Your task to perform on an android device: open app "HBO Max: Stream TV & Movies" Image 0: 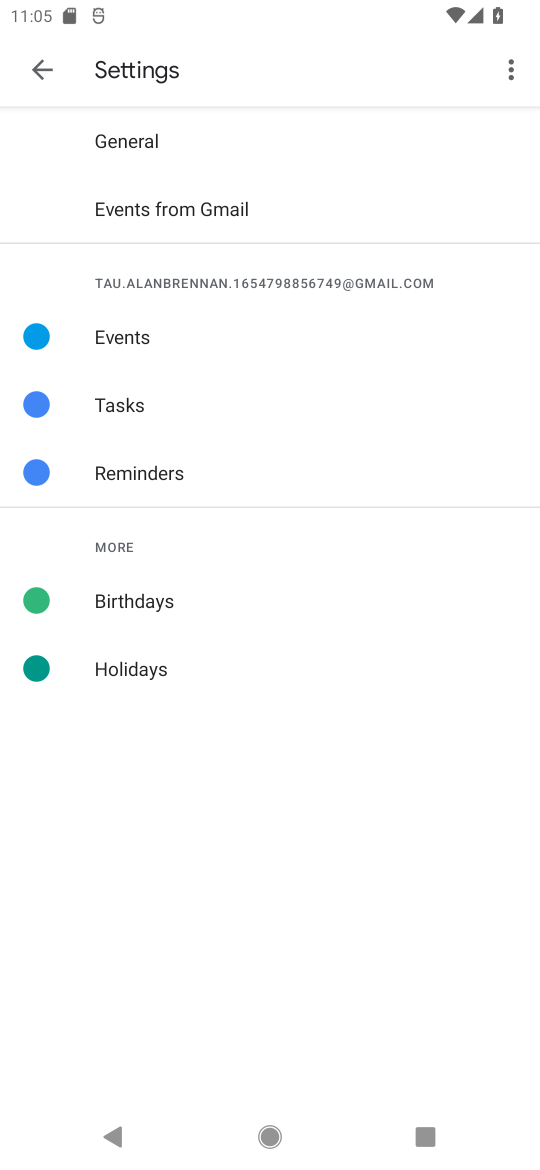
Step 0: press home button
Your task to perform on an android device: open app "HBO Max: Stream TV & Movies" Image 1: 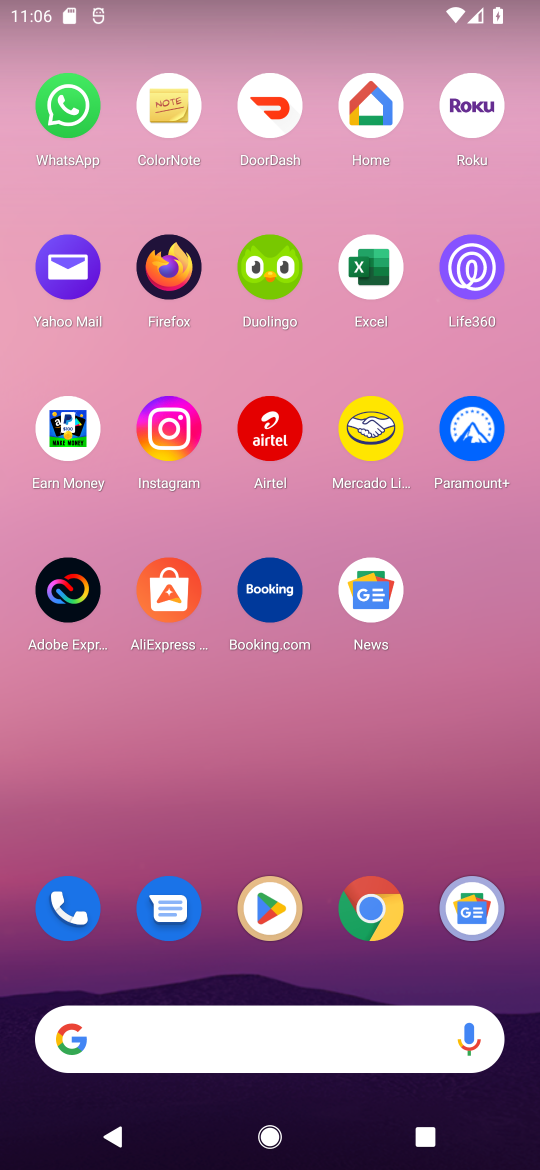
Step 1: click (277, 918)
Your task to perform on an android device: open app "HBO Max: Stream TV & Movies" Image 2: 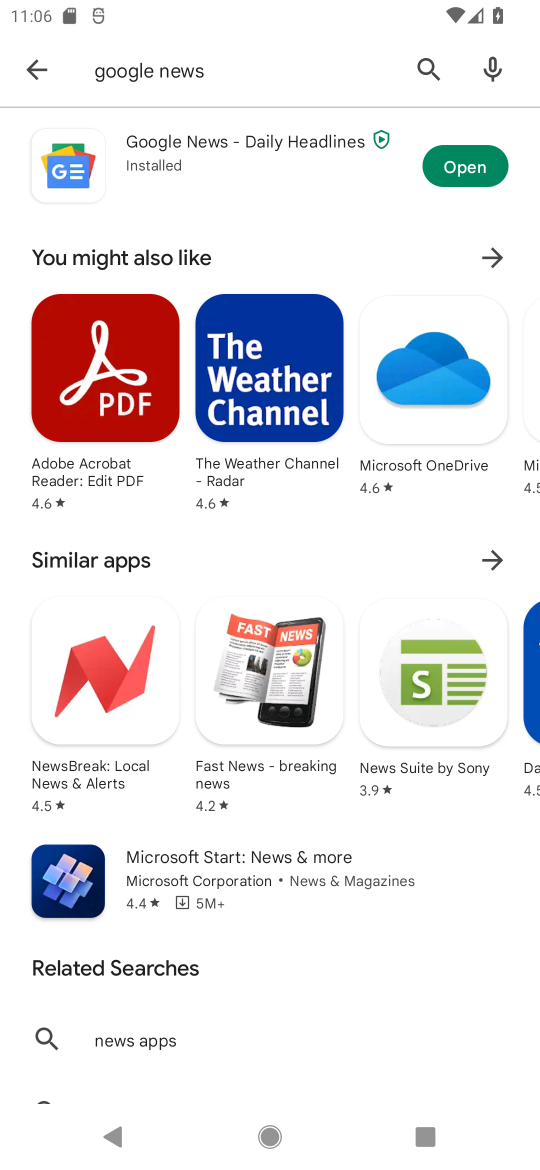
Step 2: click (47, 54)
Your task to perform on an android device: open app "HBO Max: Stream TV & Movies" Image 3: 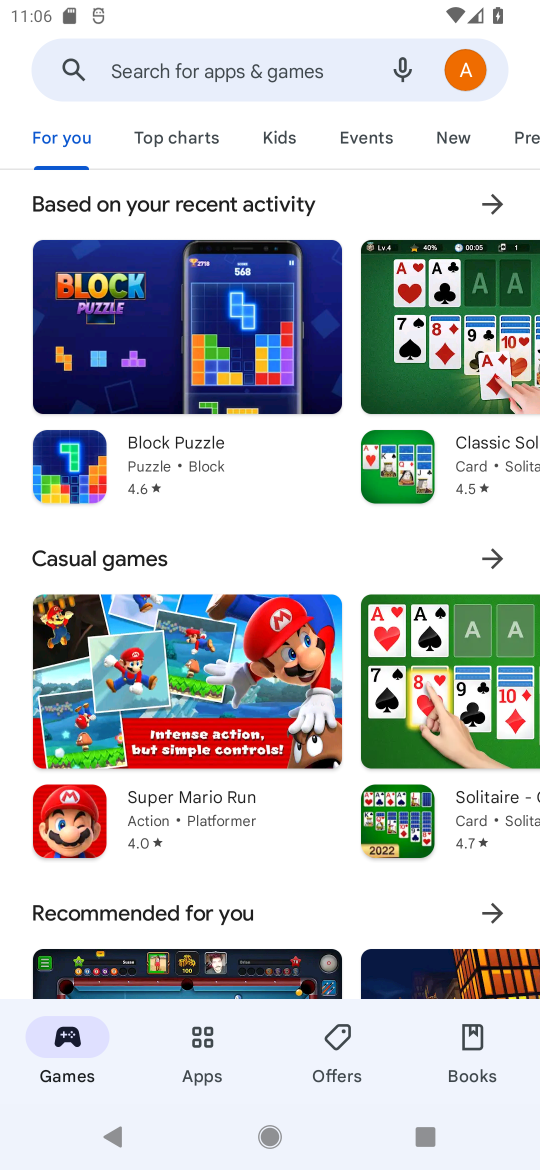
Step 3: click (126, 59)
Your task to perform on an android device: open app "HBO Max: Stream TV & Movies" Image 4: 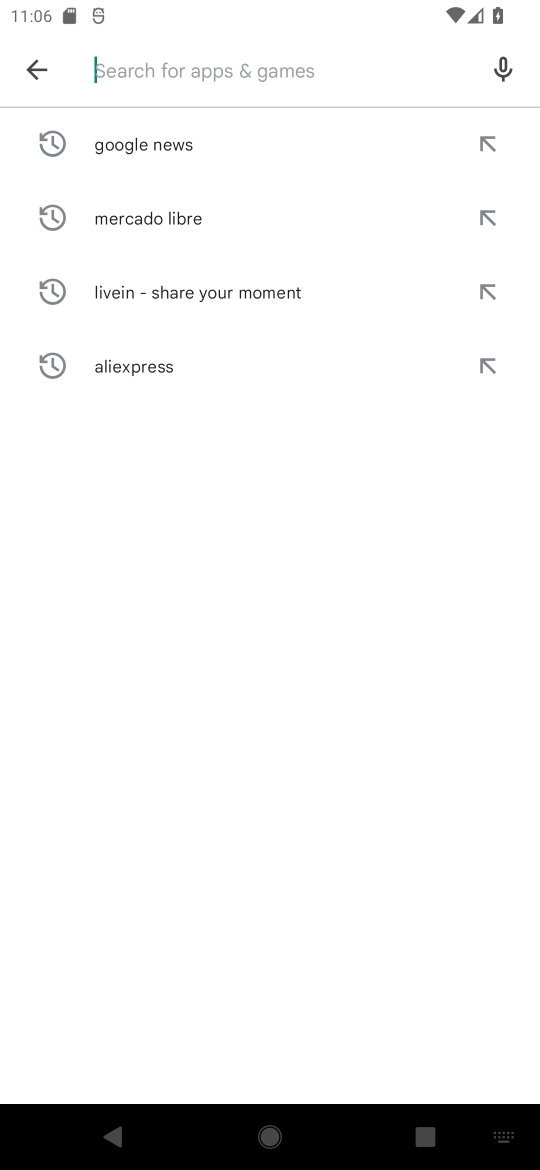
Step 4: type "HBO Max: Stream TV & Movies"
Your task to perform on an android device: open app "HBO Max: Stream TV & Movies" Image 5: 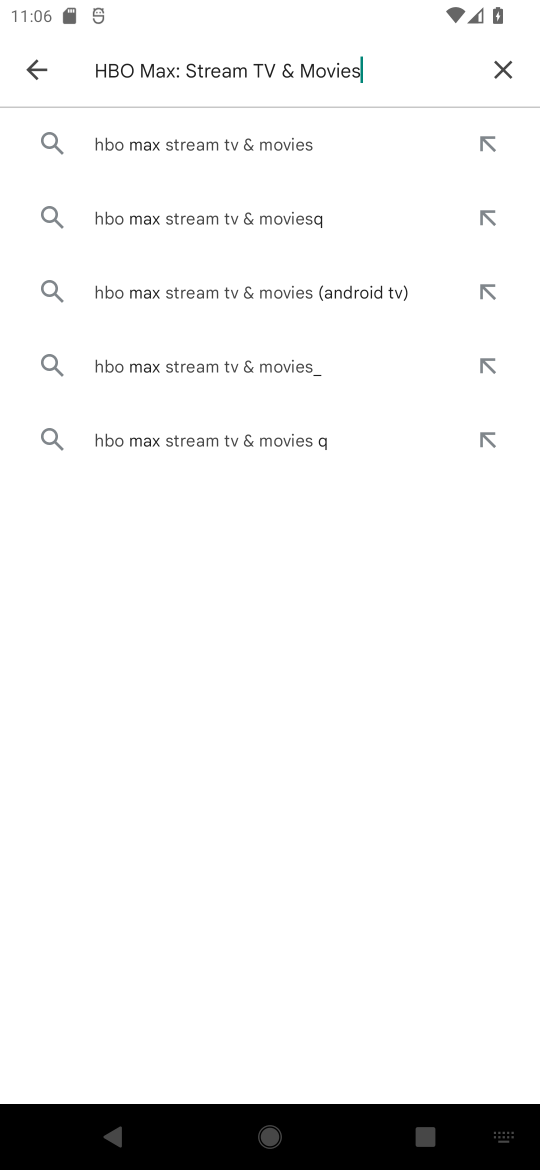
Step 5: click (82, 145)
Your task to perform on an android device: open app "HBO Max: Stream TV & Movies" Image 6: 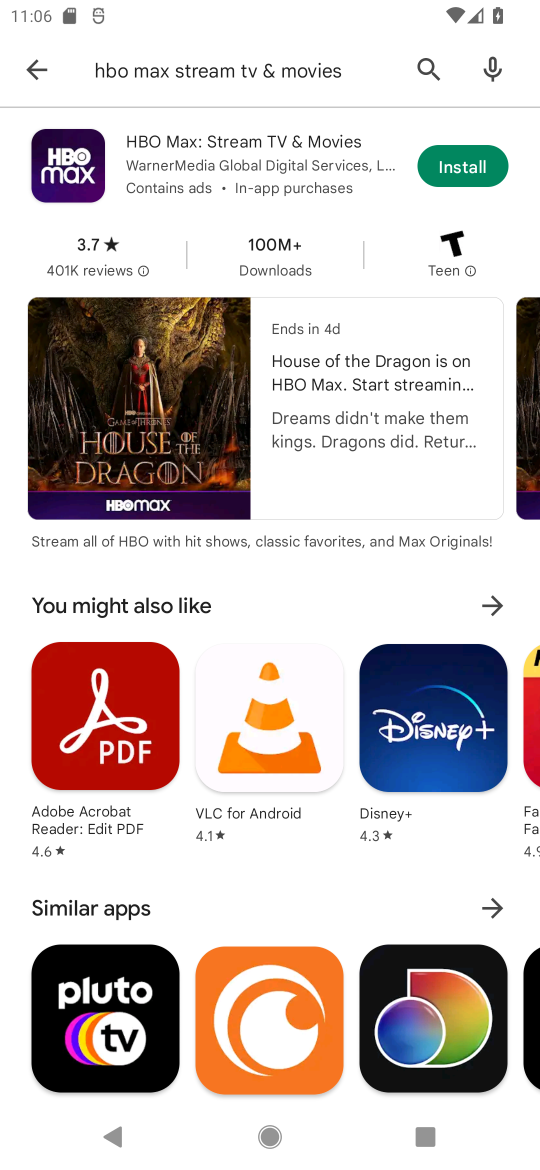
Step 6: task complete